Your task to perform on an android device: open app "Paramount+ | Peak Streaming" (install if not already installed) and go to login screen Image 0: 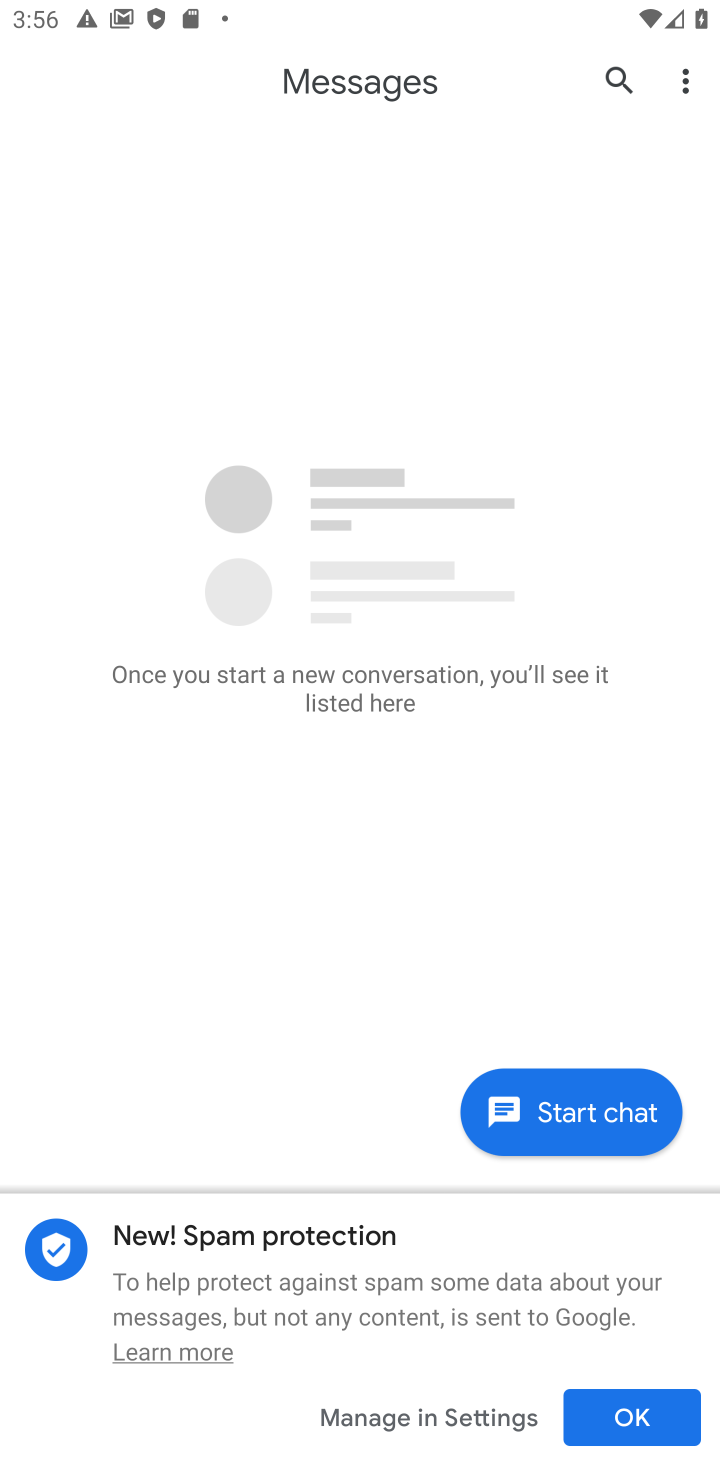
Step 0: press home button
Your task to perform on an android device: open app "Paramount+ | Peak Streaming" (install if not already installed) and go to login screen Image 1: 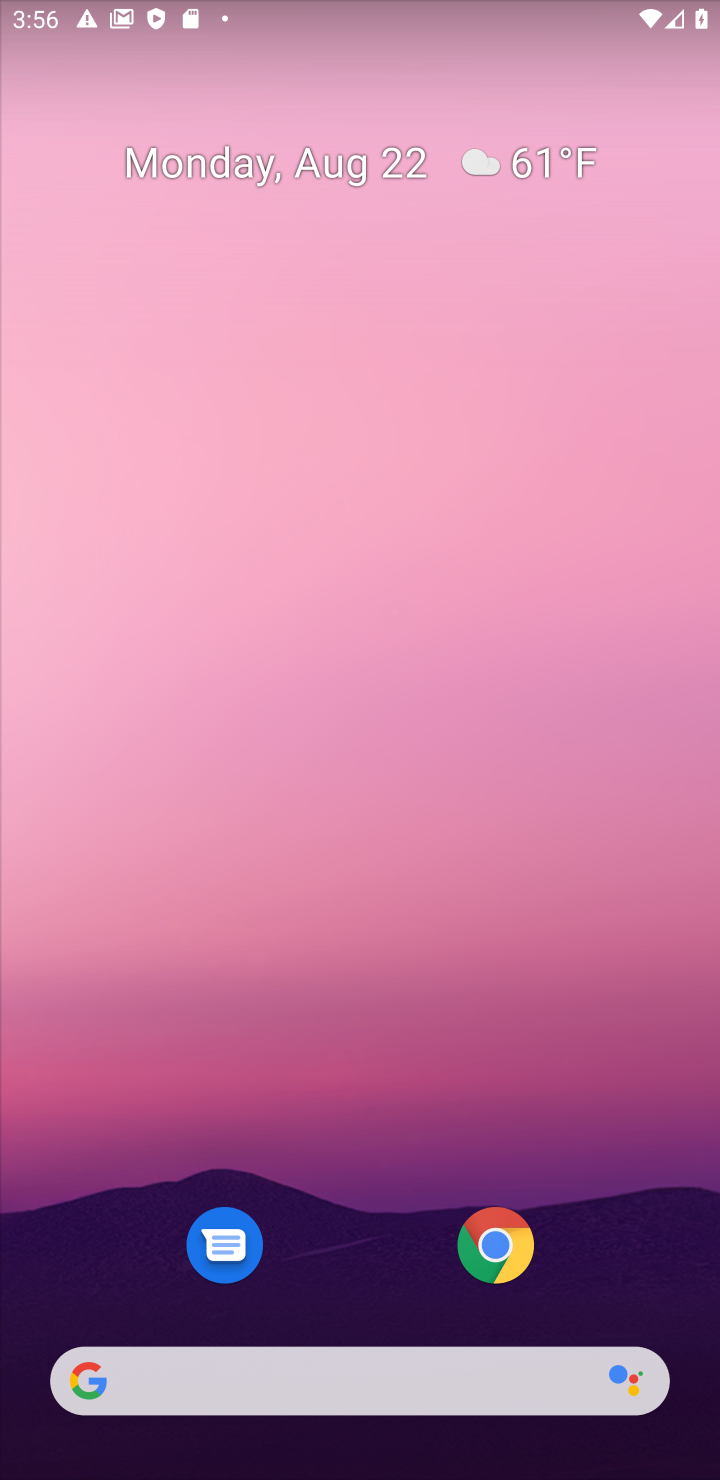
Step 1: drag from (622, 871) to (635, 202)
Your task to perform on an android device: open app "Paramount+ | Peak Streaming" (install if not already installed) and go to login screen Image 2: 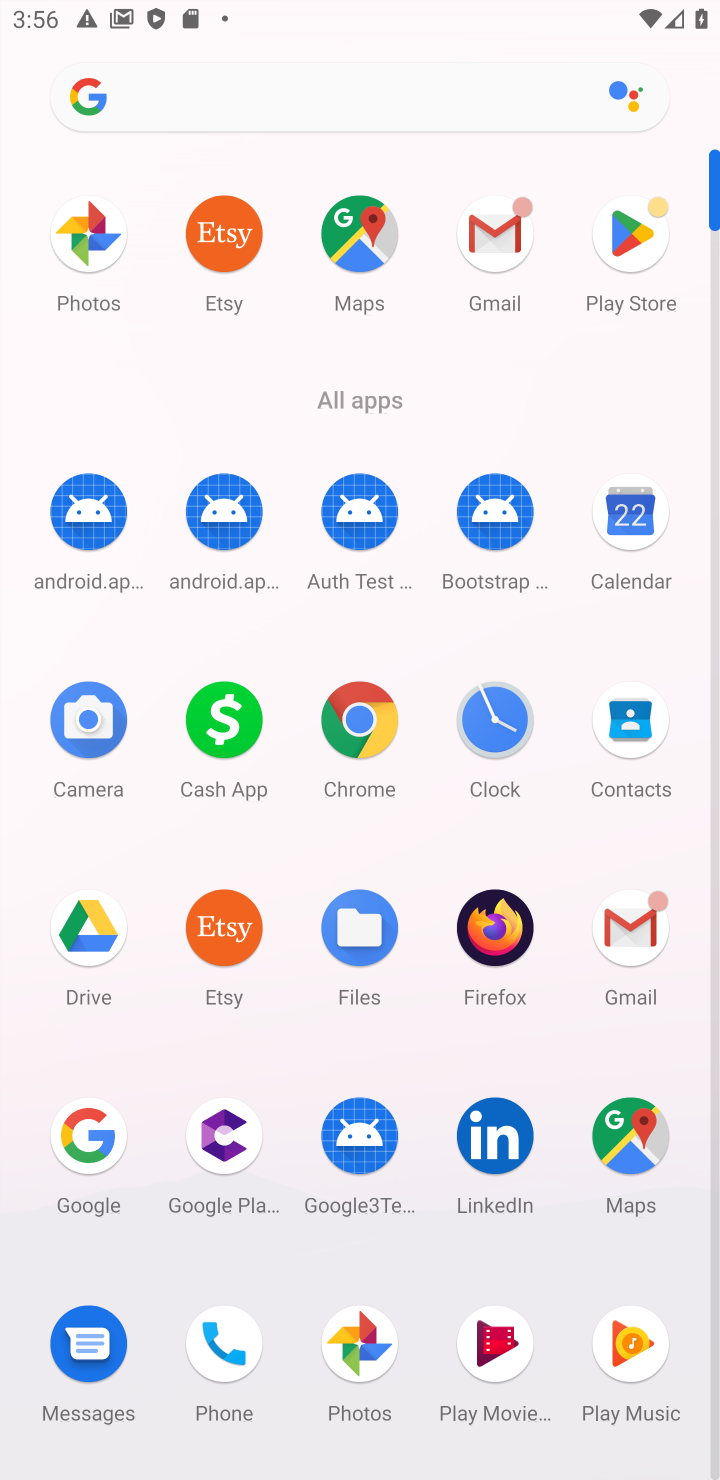
Step 2: click (637, 232)
Your task to perform on an android device: open app "Paramount+ | Peak Streaming" (install if not already installed) and go to login screen Image 3: 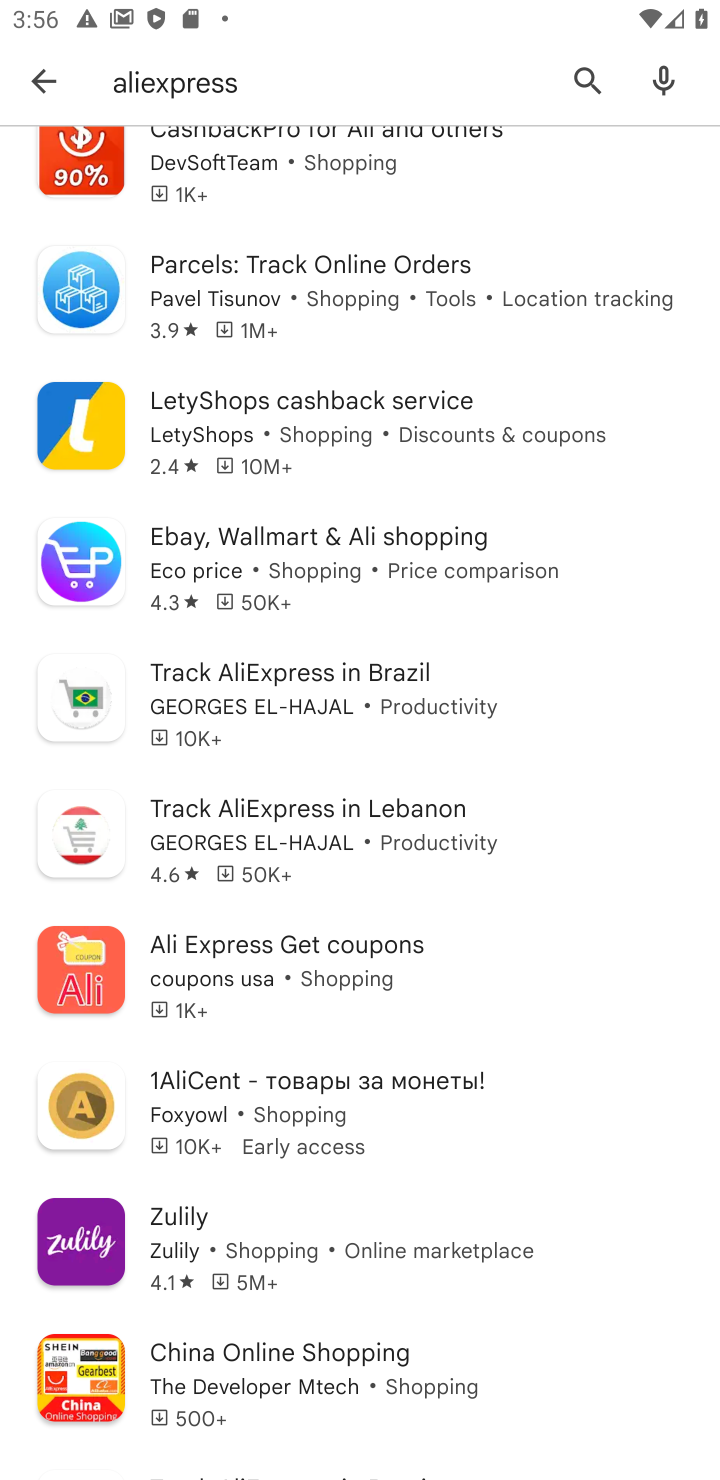
Step 3: press back button
Your task to perform on an android device: open app "Paramount+ | Peak Streaming" (install if not already installed) and go to login screen Image 4: 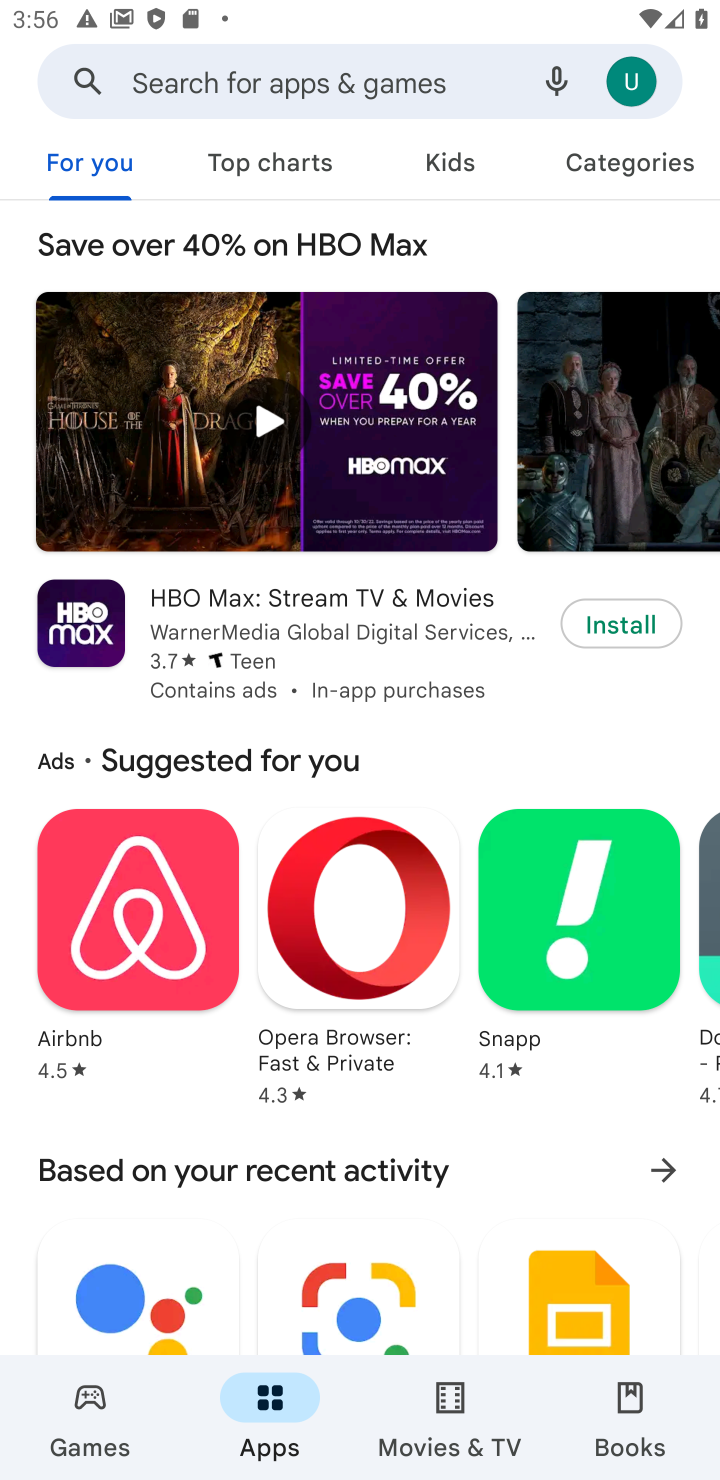
Step 4: click (380, 86)
Your task to perform on an android device: open app "Paramount+ | Peak Streaming" (install if not already installed) and go to login screen Image 5: 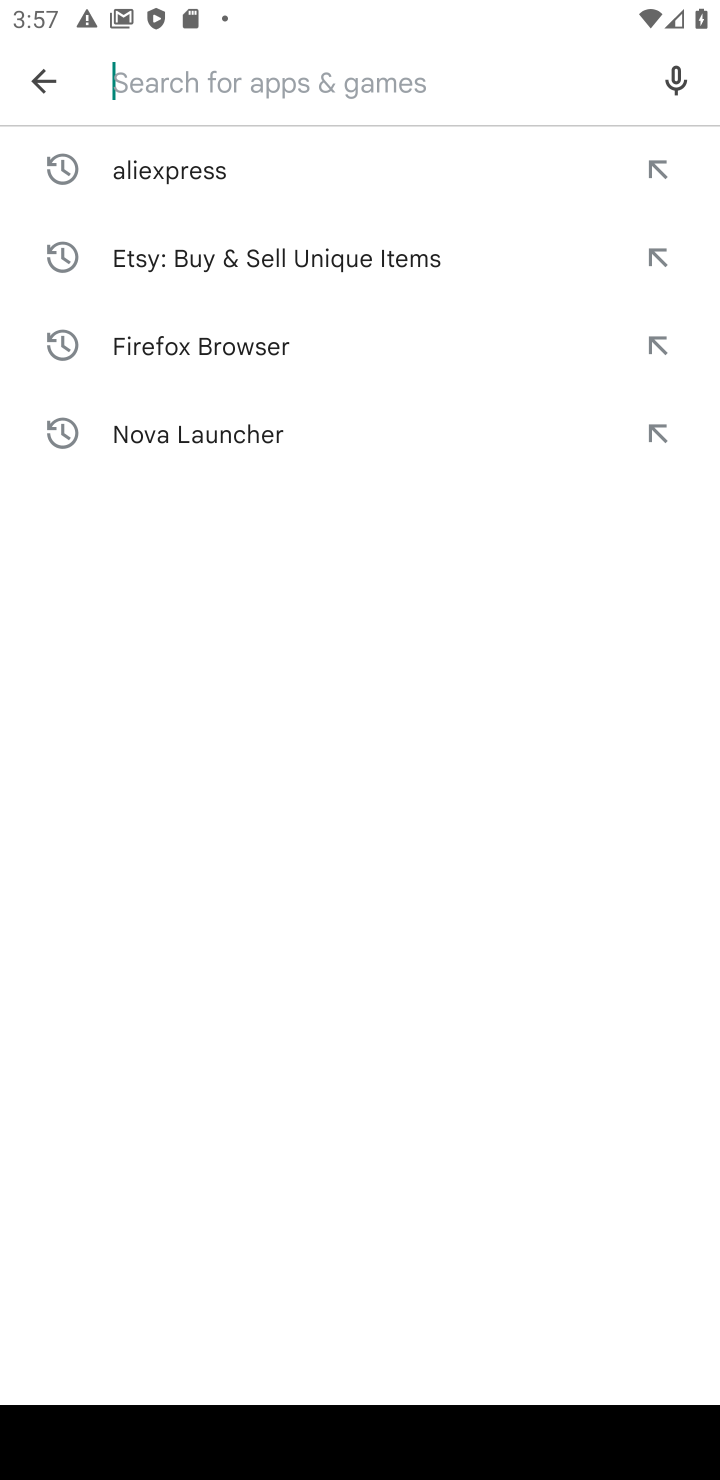
Step 5: press enter
Your task to perform on an android device: open app "Paramount+ | Peak Streaming" (install if not already installed) and go to login screen Image 6: 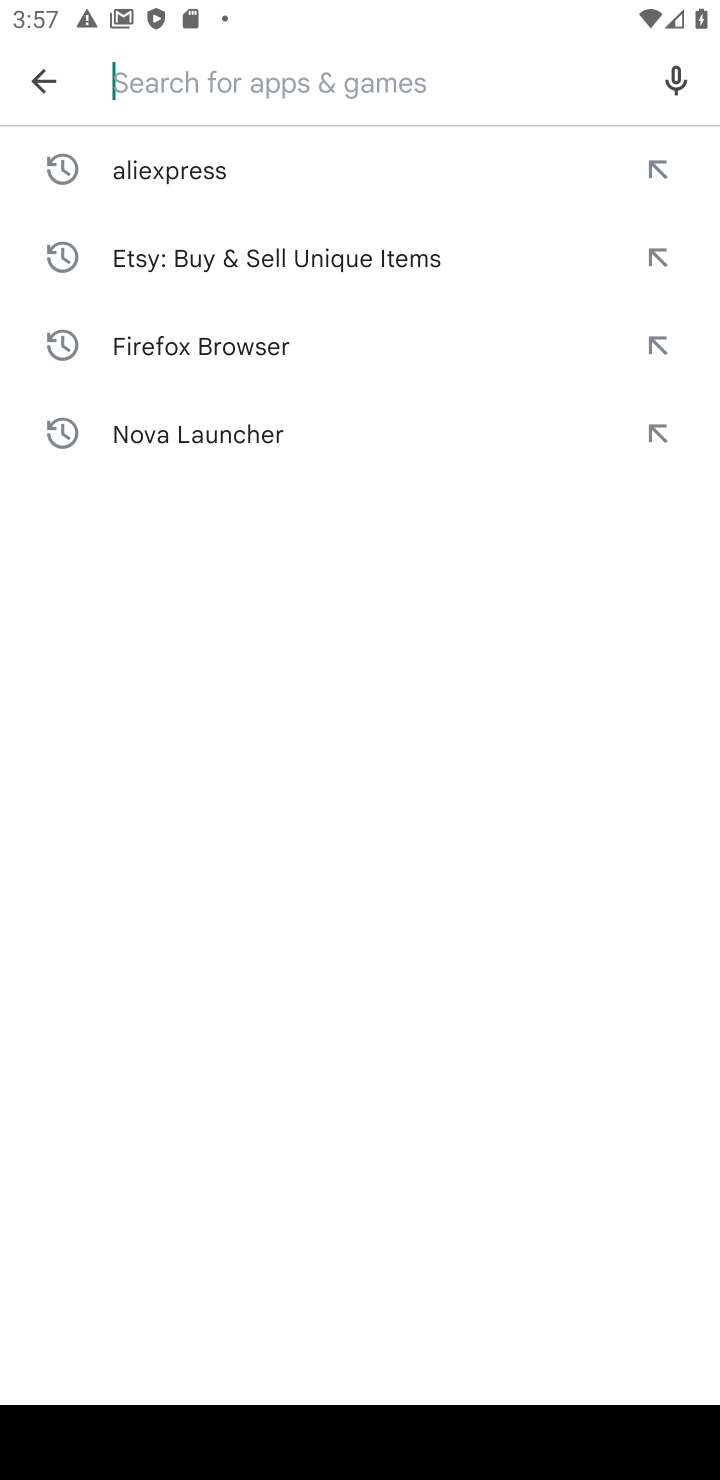
Step 6: type "Paramount+ | Peak Streaming"
Your task to perform on an android device: open app "Paramount+ | Peak Streaming" (install if not already installed) and go to login screen Image 7: 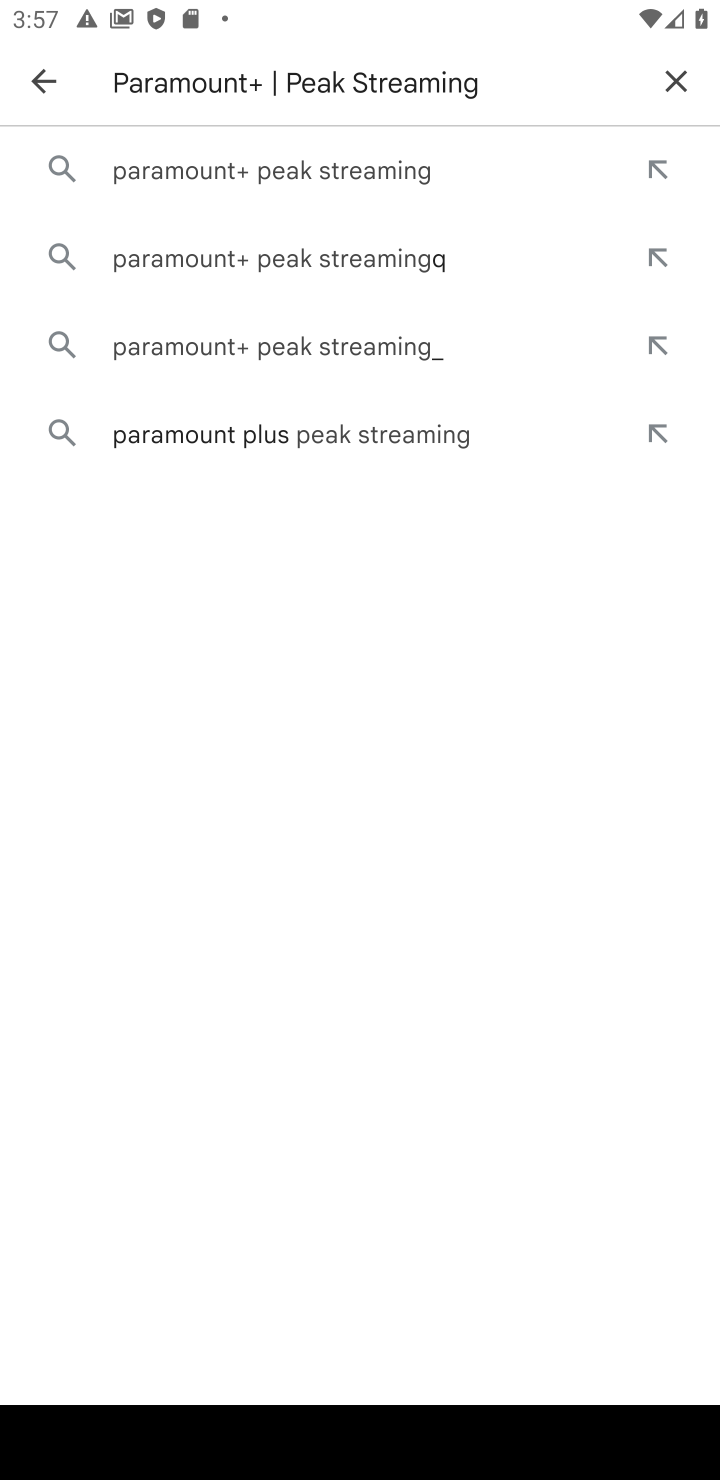
Step 7: click (408, 177)
Your task to perform on an android device: open app "Paramount+ | Peak Streaming" (install if not already installed) and go to login screen Image 8: 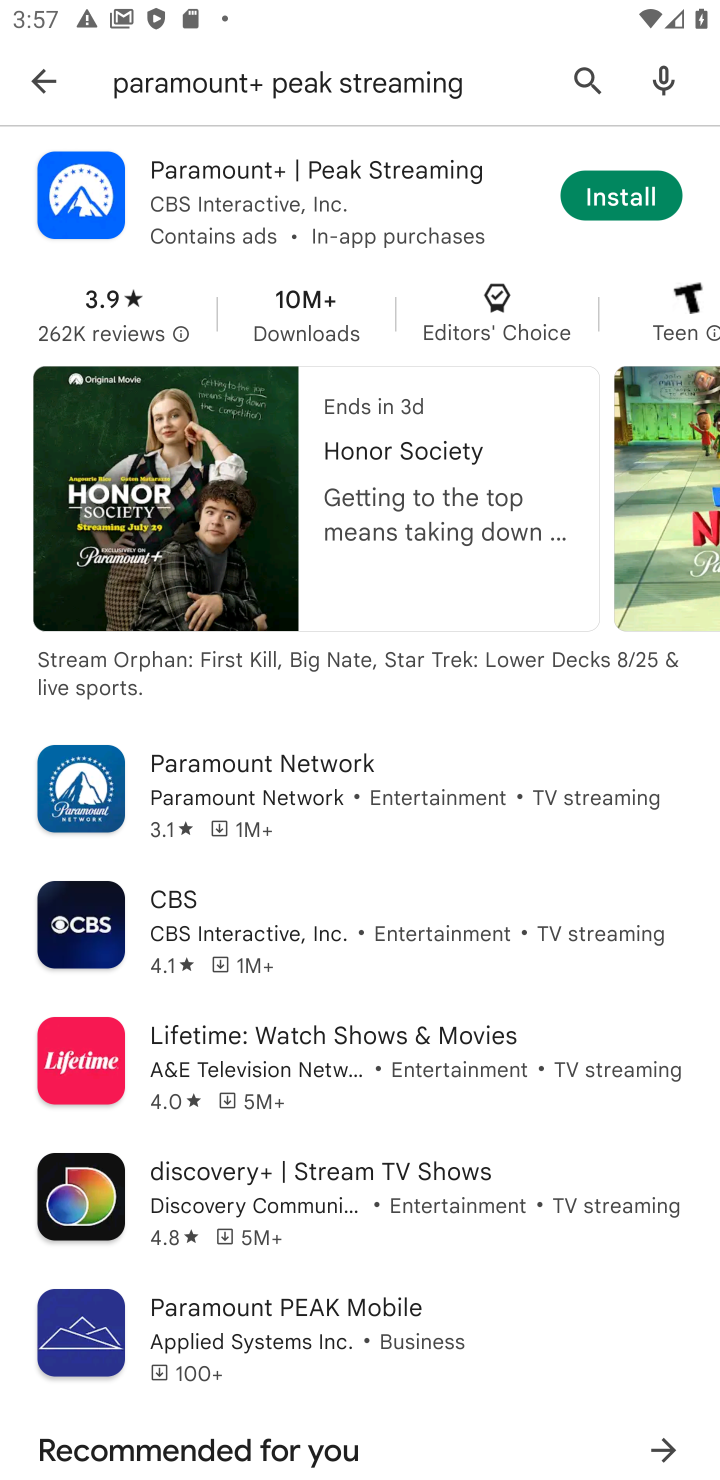
Step 8: click (622, 191)
Your task to perform on an android device: open app "Paramount+ | Peak Streaming" (install if not already installed) and go to login screen Image 9: 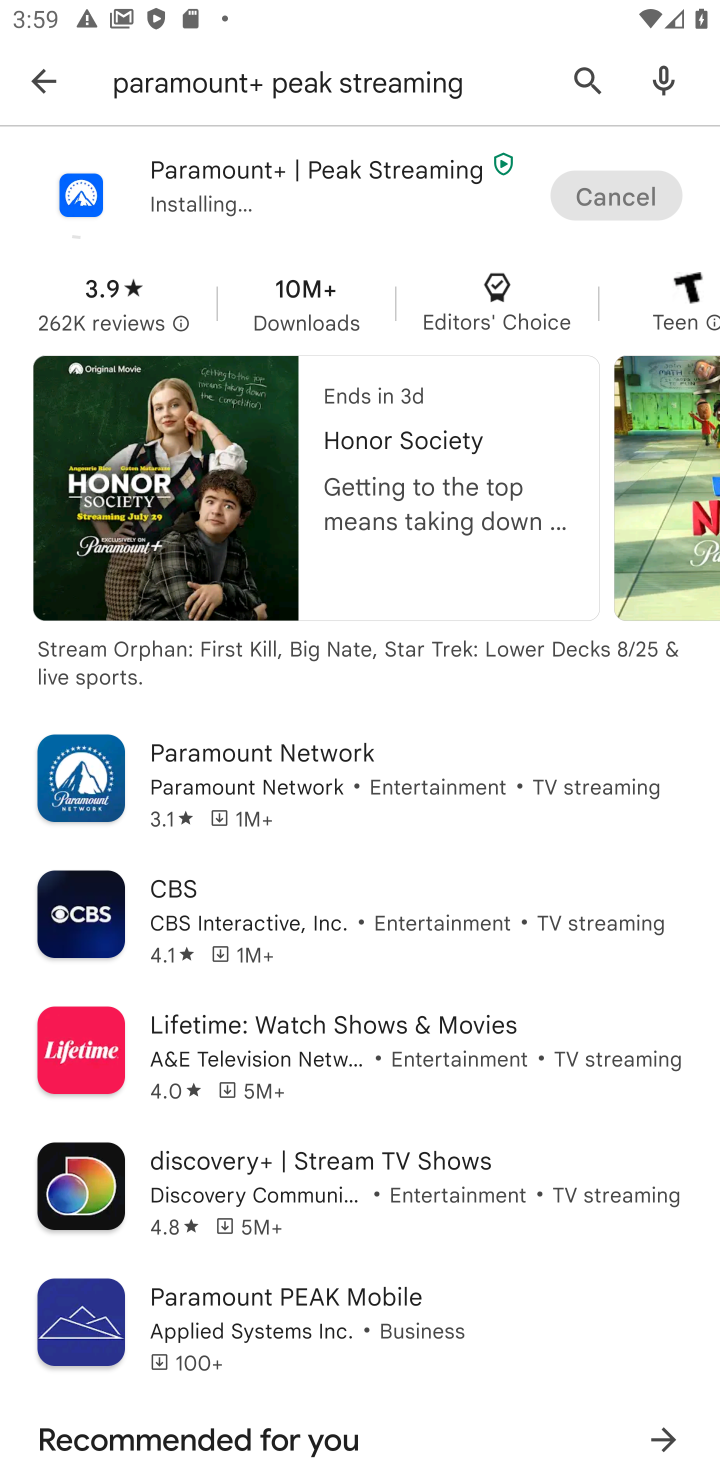
Step 9: task complete